Your task to perform on an android device: Open battery settings Image 0: 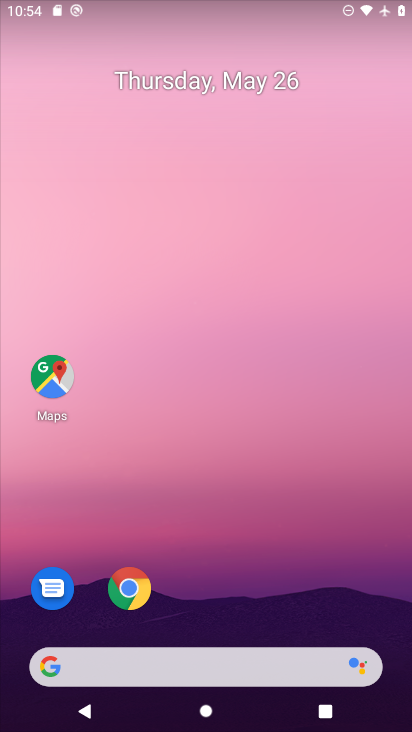
Step 0: drag from (389, 632) to (327, 12)
Your task to perform on an android device: Open battery settings Image 1: 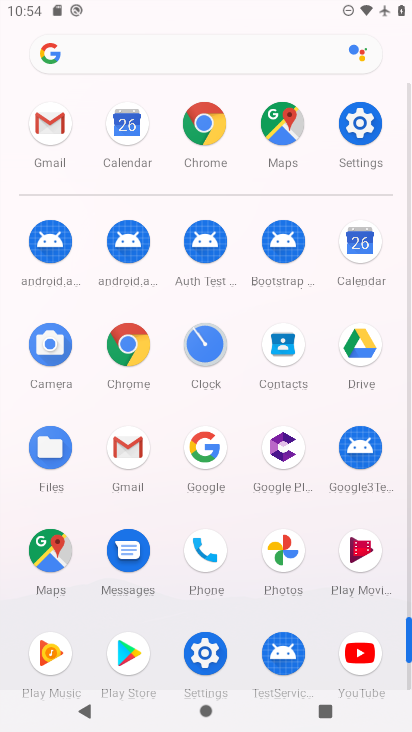
Step 1: click (204, 656)
Your task to perform on an android device: Open battery settings Image 2: 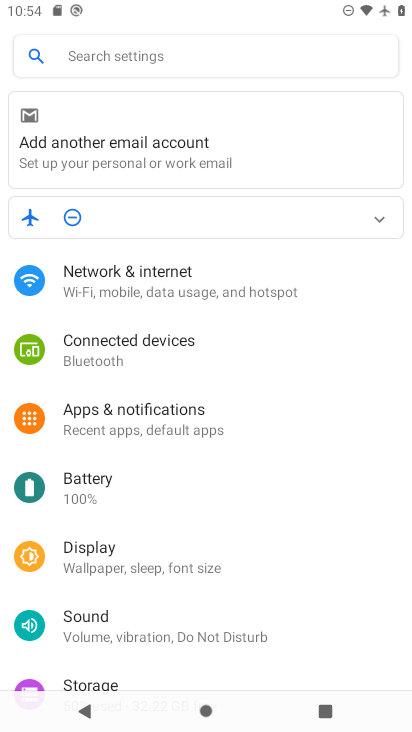
Step 2: click (91, 472)
Your task to perform on an android device: Open battery settings Image 3: 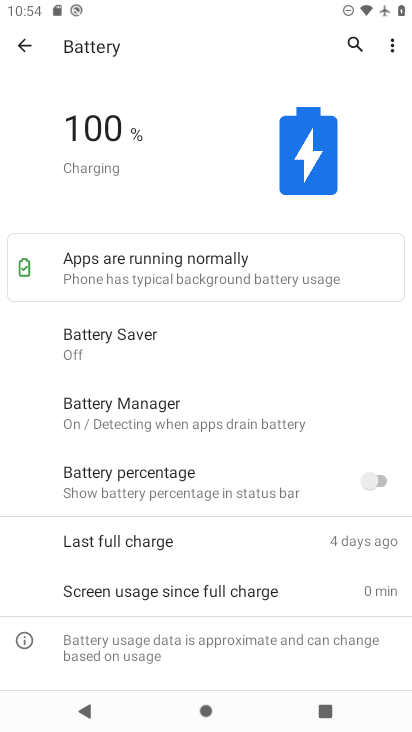
Step 3: task complete